Your task to perform on an android device: turn on bluetooth scan Image 0: 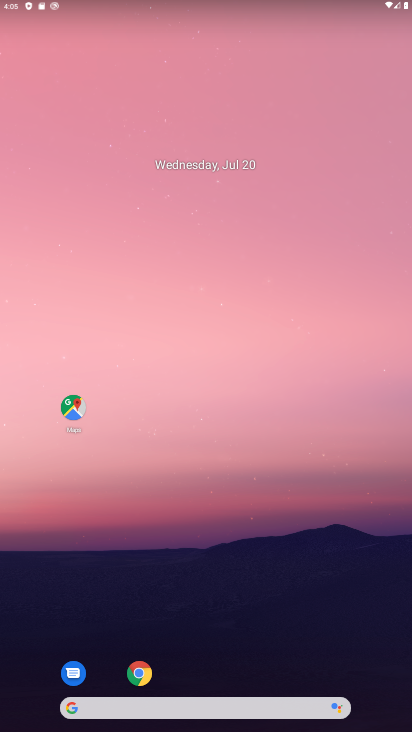
Step 0: drag from (316, 609) to (382, 96)
Your task to perform on an android device: turn on bluetooth scan Image 1: 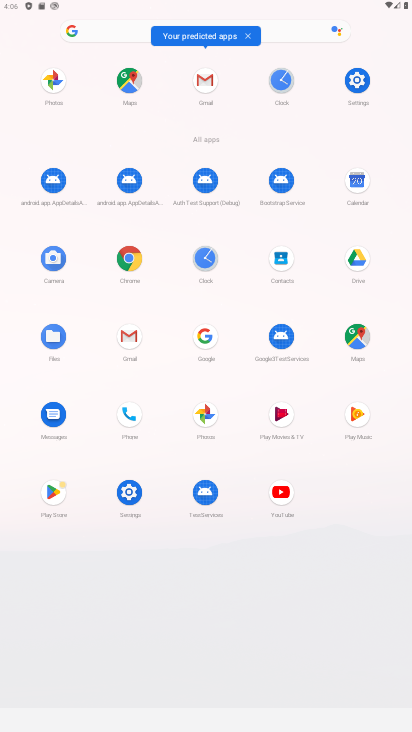
Step 1: click (129, 493)
Your task to perform on an android device: turn on bluetooth scan Image 2: 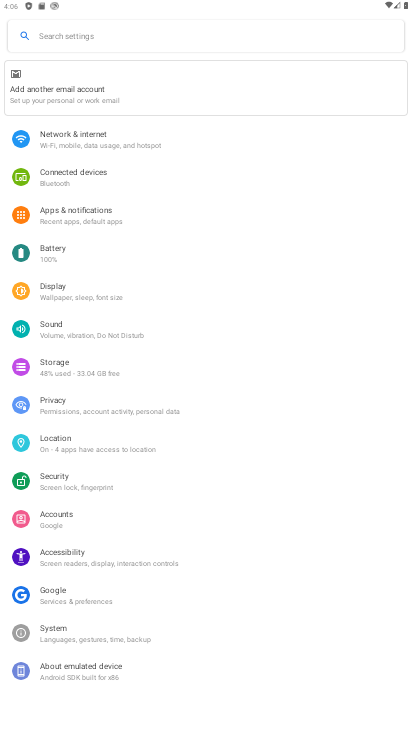
Step 2: click (59, 431)
Your task to perform on an android device: turn on bluetooth scan Image 3: 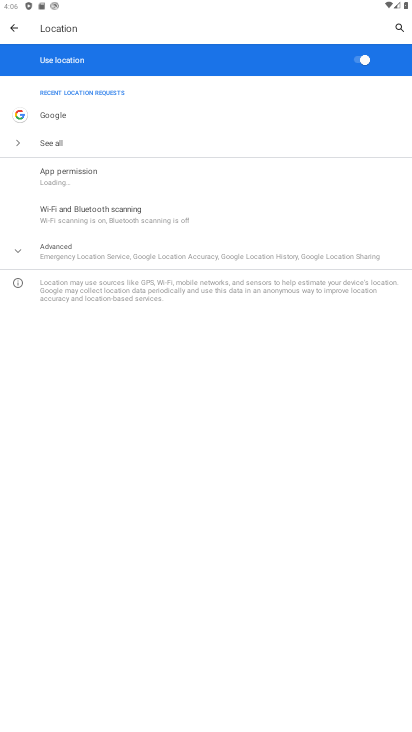
Step 3: click (120, 212)
Your task to perform on an android device: turn on bluetooth scan Image 4: 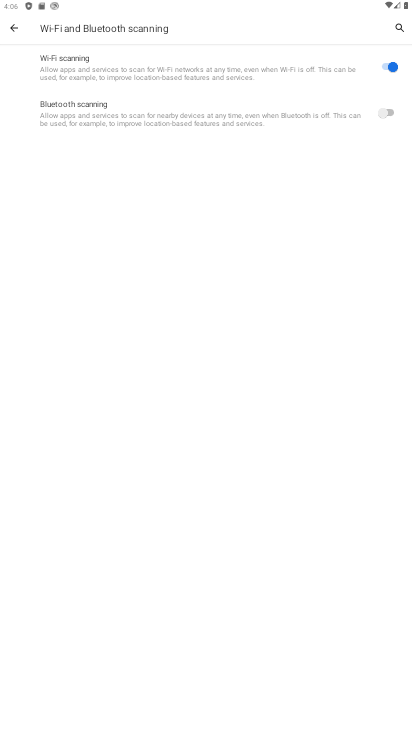
Step 4: click (238, 118)
Your task to perform on an android device: turn on bluetooth scan Image 5: 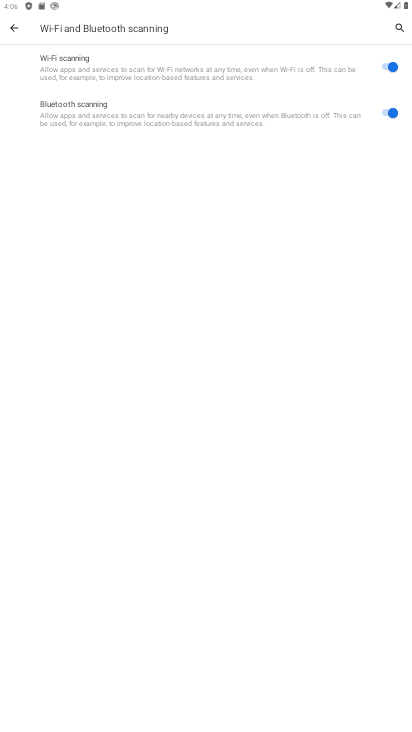
Step 5: task complete